Your task to perform on an android device: delete a single message in the gmail app Image 0: 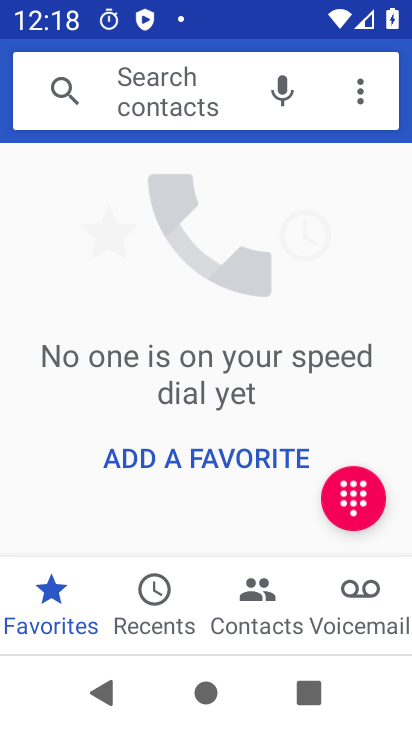
Step 0: press home button
Your task to perform on an android device: delete a single message in the gmail app Image 1: 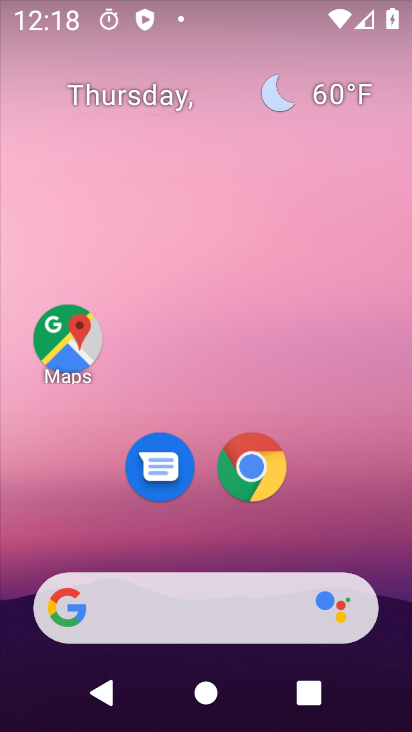
Step 1: drag from (188, 526) to (211, 148)
Your task to perform on an android device: delete a single message in the gmail app Image 2: 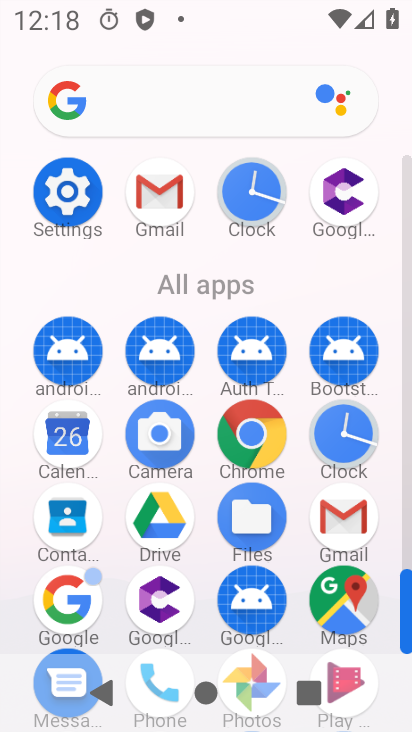
Step 2: click (362, 528)
Your task to perform on an android device: delete a single message in the gmail app Image 3: 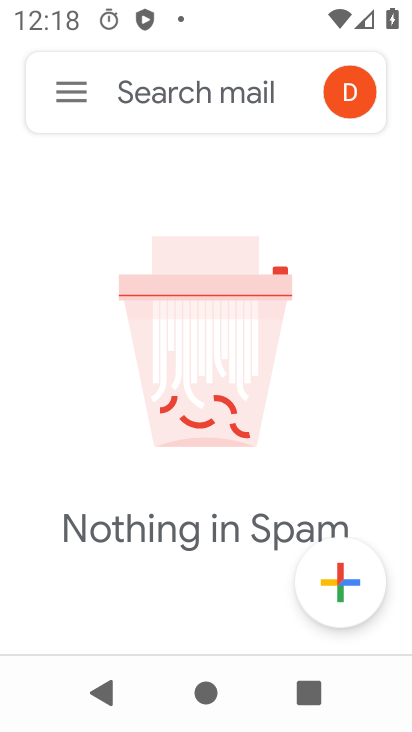
Step 3: click (57, 87)
Your task to perform on an android device: delete a single message in the gmail app Image 4: 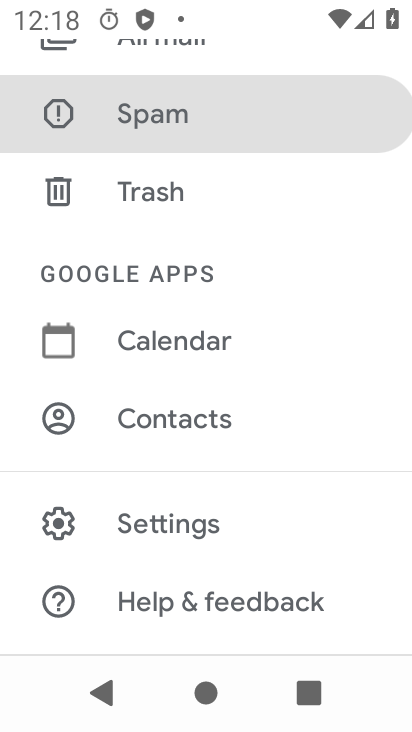
Step 4: drag from (167, 158) to (165, 301)
Your task to perform on an android device: delete a single message in the gmail app Image 5: 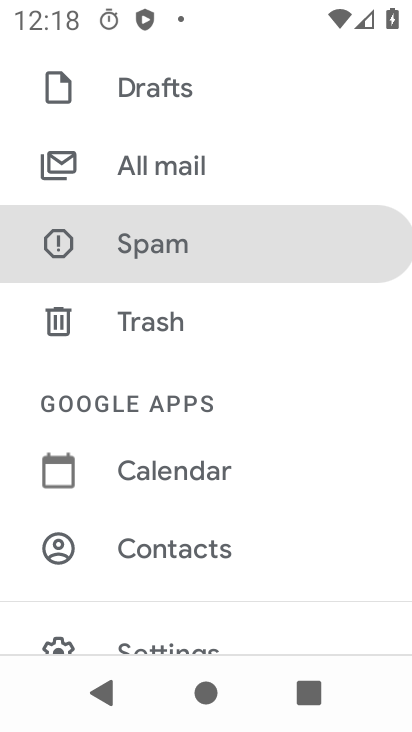
Step 5: click (162, 175)
Your task to perform on an android device: delete a single message in the gmail app Image 6: 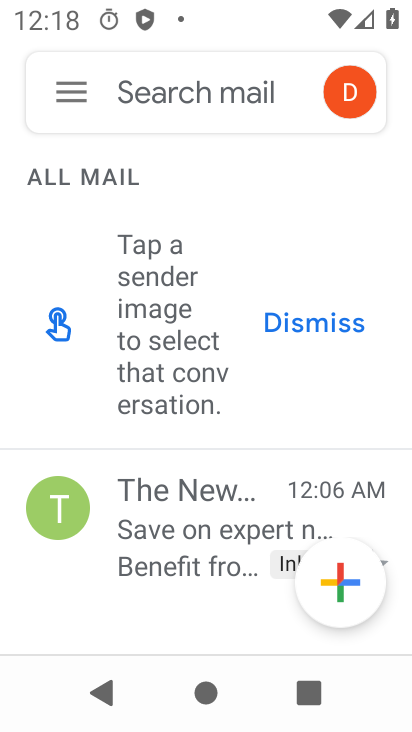
Step 6: click (54, 538)
Your task to perform on an android device: delete a single message in the gmail app Image 7: 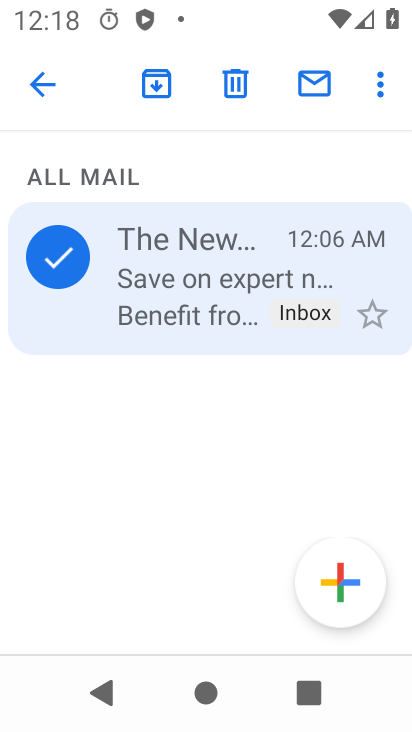
Step 7: click (236, 78)
Your task to perform on an android device: delete a single message in the gmail app Image 8: 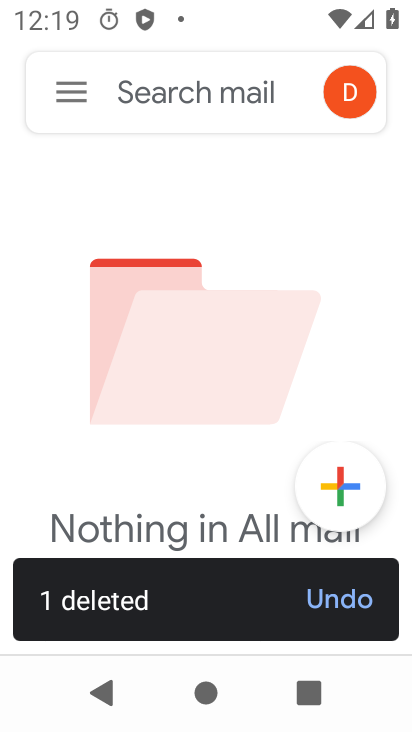
Step 8: task complete